Your task to perform on an android device: Open notification settings Image 0: 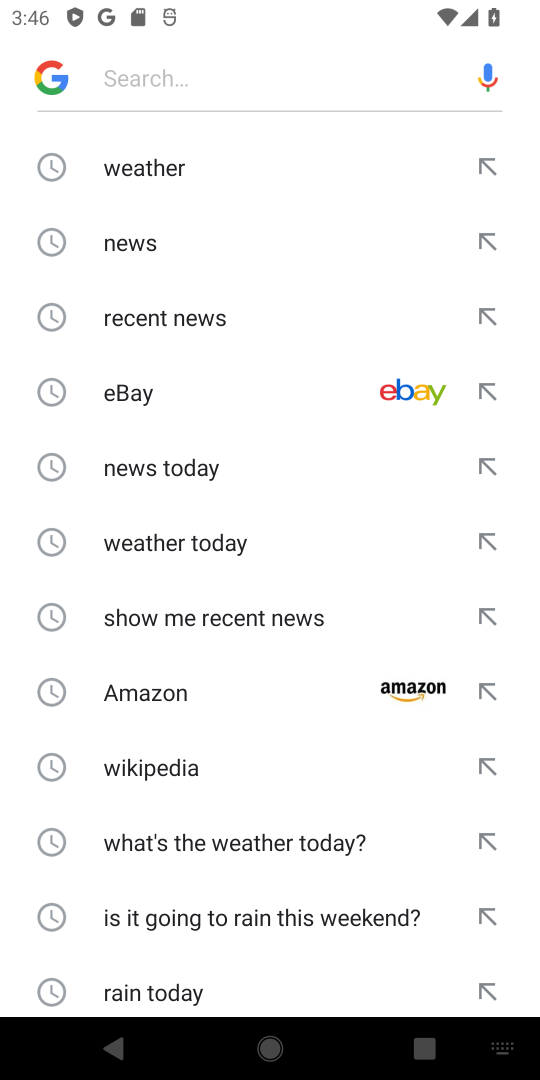
Step 0: press home button
Your task to perform on an android device: Open notification settings Image 1: 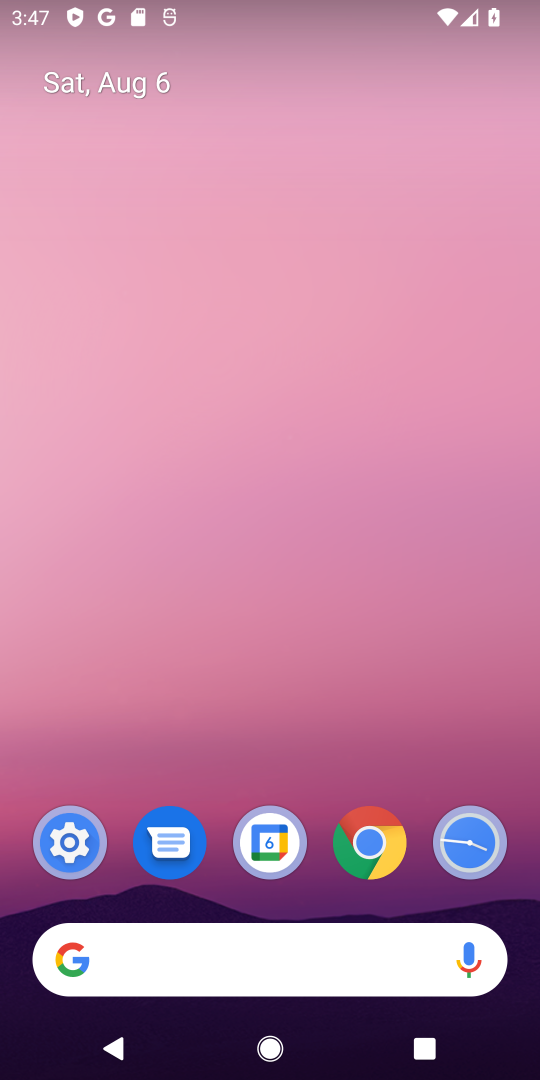
Step 1: click (58, 846)
Your task to perform on an android device: Open notification settings Image 2: 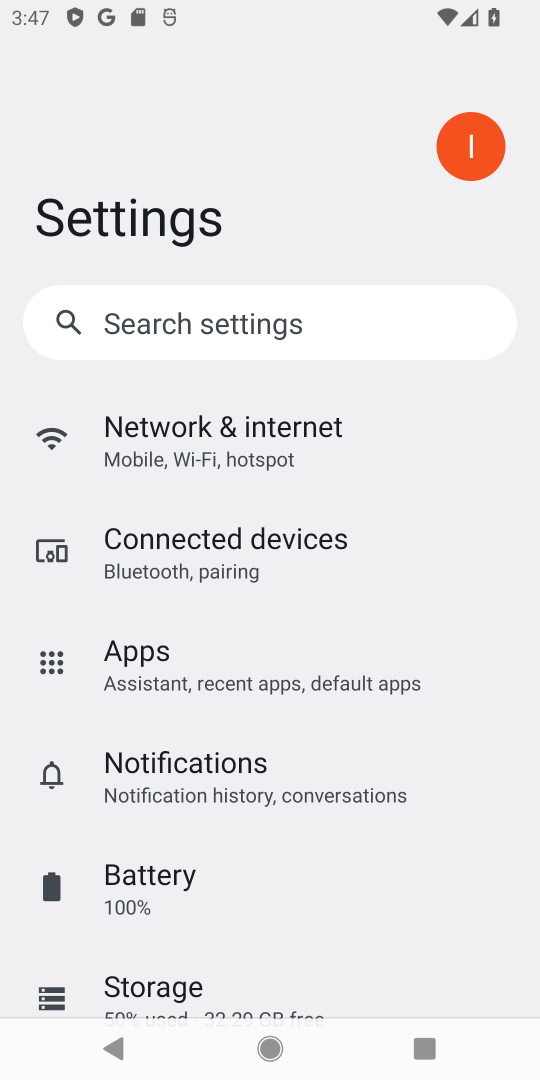
Step 2: click (211, 759)
Your task to perform on an android device: Open notification settings Image 3: 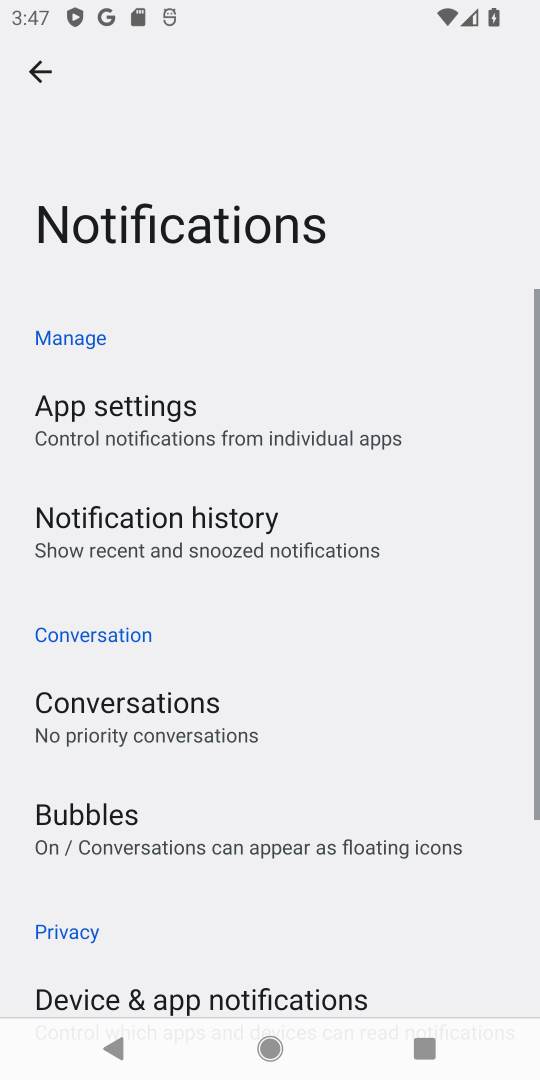
Step 3: task complete